Your task to perform on an android device: turn smart compose on in the gmail app Image 0: 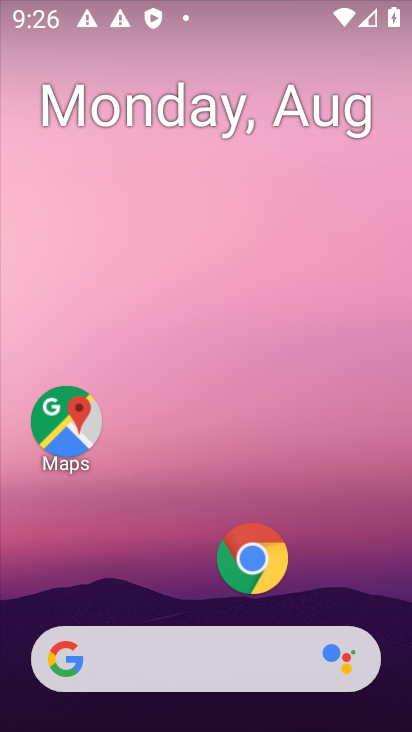
Step 0: press home button
Your task to perform on an android device: turn smart compose on in the gmail app Image 1: 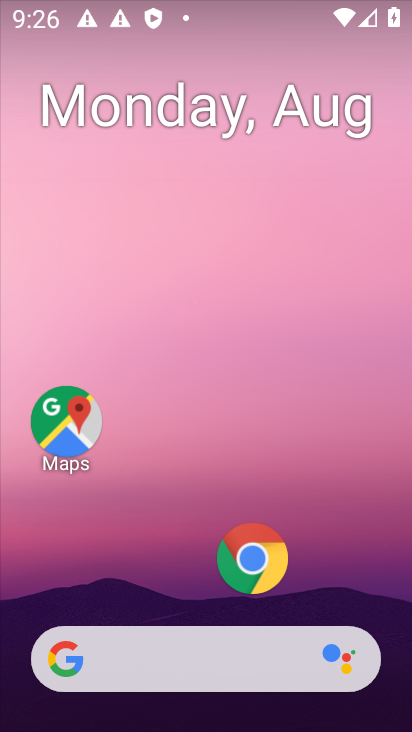
Step 1: drag from (184, 595) to (184, 53)
Your task to perform on an android device: turn smart compose on in the gmail app Image 2: 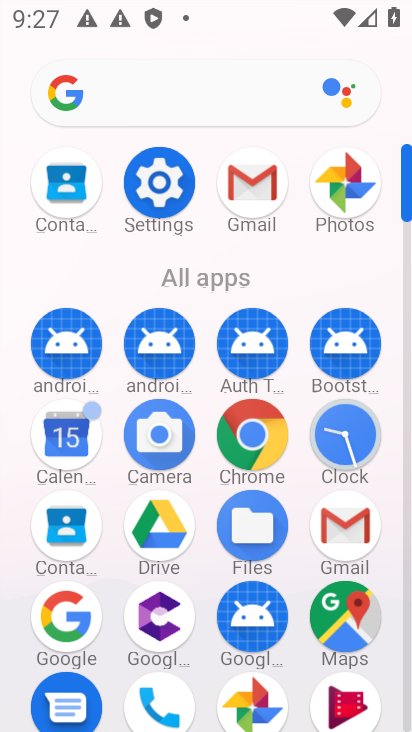
Step 2: click (249, 172)
Your task to perform on an android device: turn smart compose on in the gmail app Image 3: 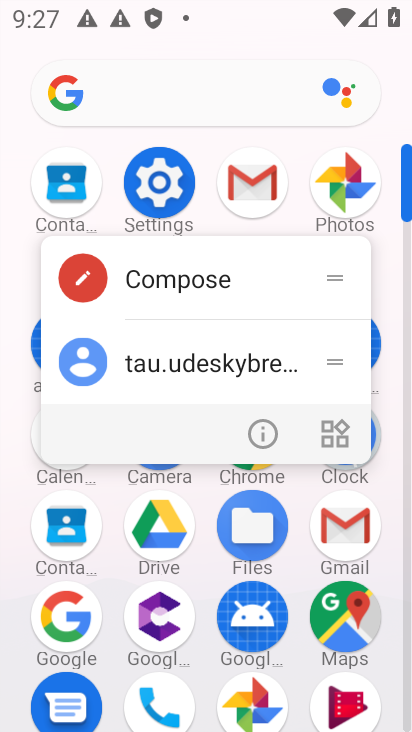
Step 3: click (249, 172)
Your task to perform on an android device: turn smart compose on in the gmail app Image 4: 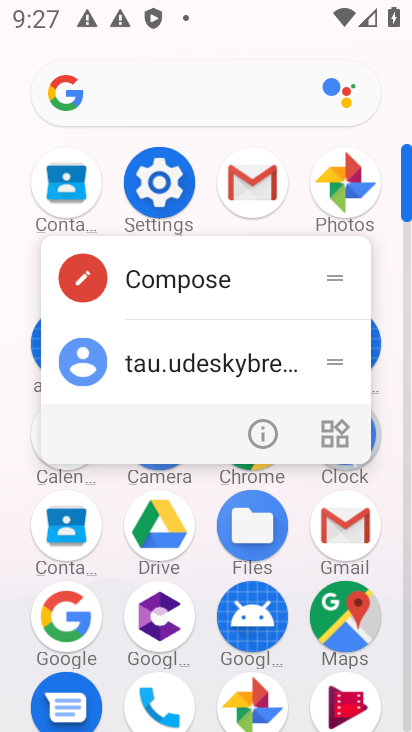
Step 4: click (251, 180)
Your task to perform on an android device: turn smart compose on in the gmail app Image 5: 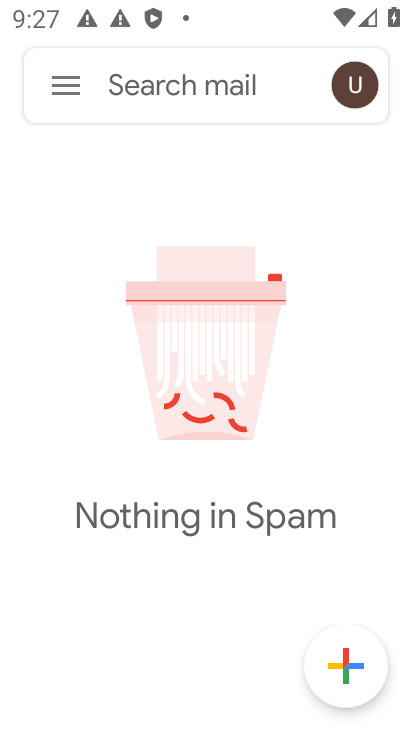
Step 5: click (63, 86)
Your task to perform on an android device: turn smart compose on in the gmail app Image 6: 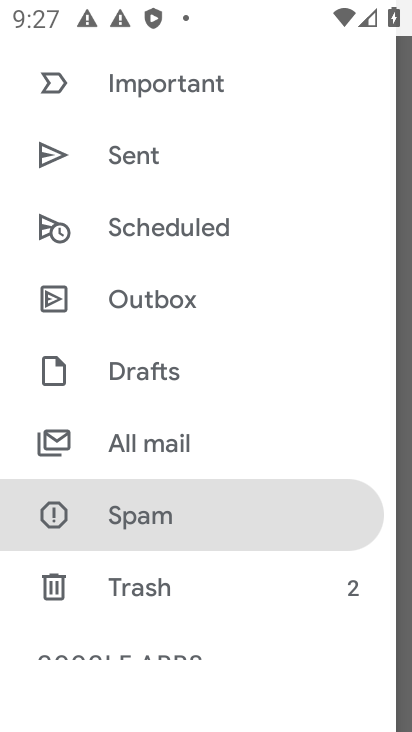
Step 6: drag from (167, 613) to (148, 175)
Your task to perform on an android device: turn smart compose on in the gmail app Image 7: 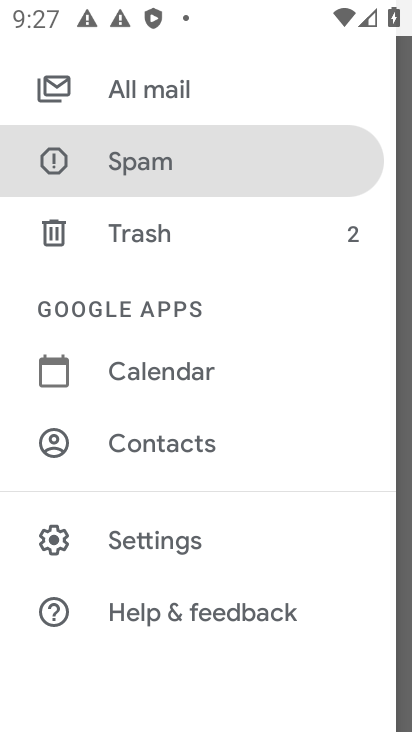
Step 7: click (209, 540)
Your task to perform on an android device: turn smart compose on in the gmail app Image 8: 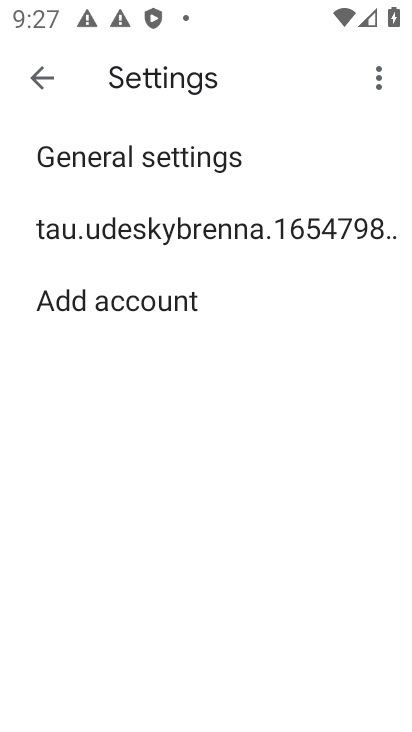
Step 8: click (200, 229)
Your task to perform on an android device: turn smart compose on in the gmail app Image 9: 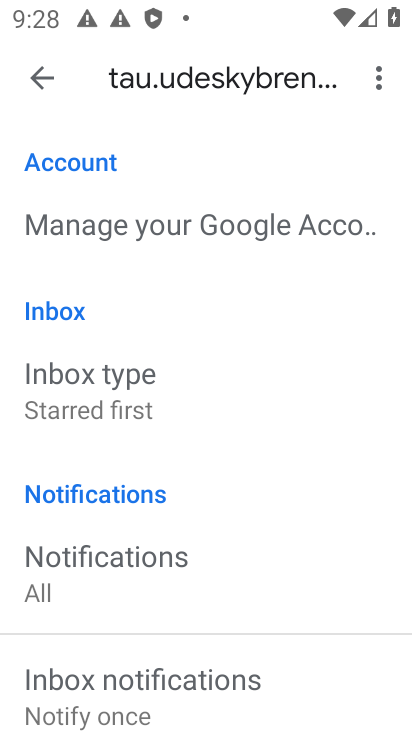
Step 9: task complete